Your task to perform on an android device: toggle javascript in the chrome app Image 0: 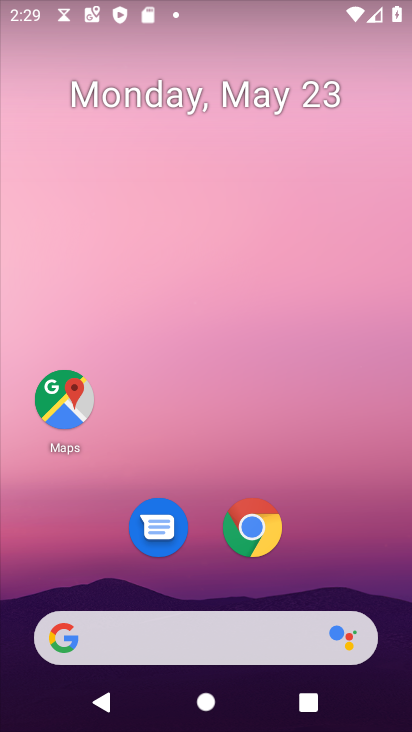
Step 0: drag from (292, 492) to (265, 31)
Your task to perform on an android device: toggle javascript in the chrome app Image 1: 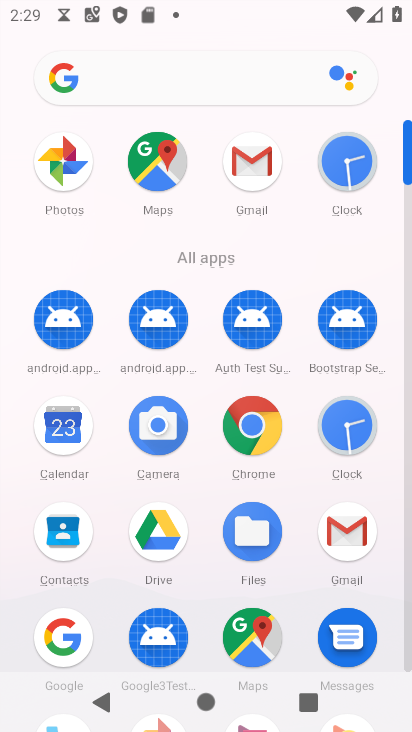
Step 1: drag from (15, 595) to (13, 196)
Your task to perform on an android device: toggle javascript in the chrome app Image 2: 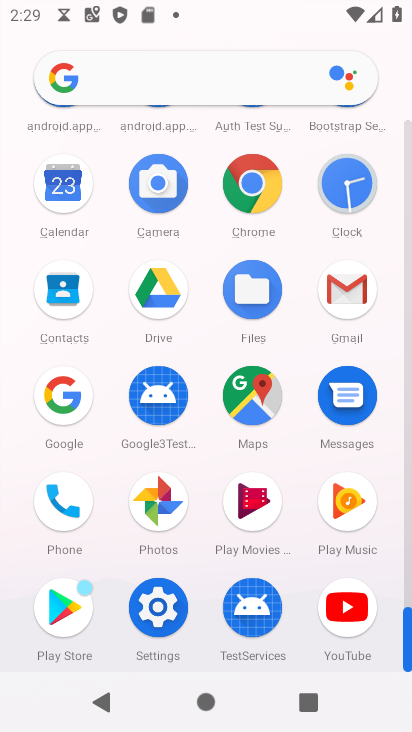
Step 2: click (248, 183)
Your task to perform on an android device: toggle javascript in the chrome app Image 3: 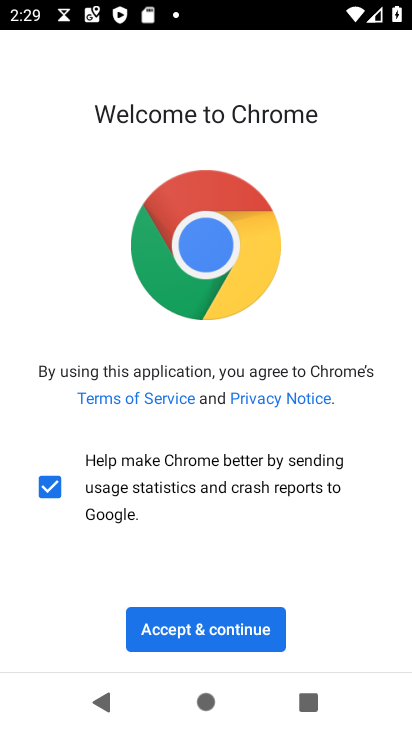
Step 3: click (211, 627)
Your task to perform on an android device: toggle javascript in the chrome app Image 4: 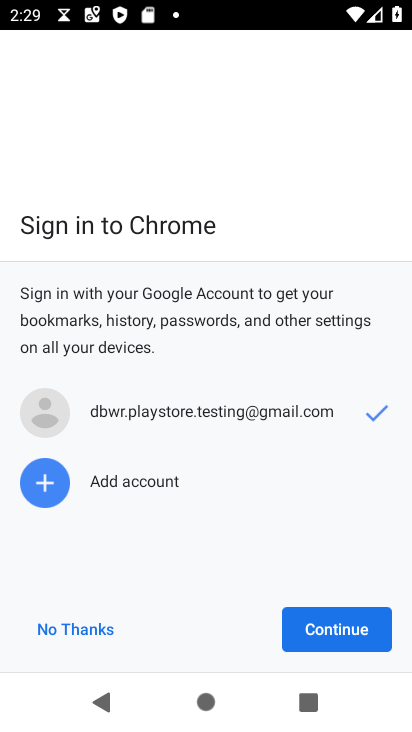
Step 4: click (326, 623)
Your task to perform on an android device: toggle javascript in the chrome app Image 5: 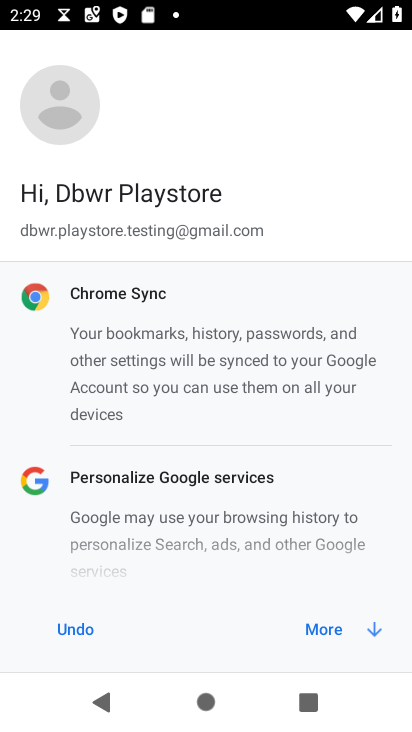
Step 5: click (332, 625)
Your task to perform on an android device: toggle javascript in the chrome app Image 6: 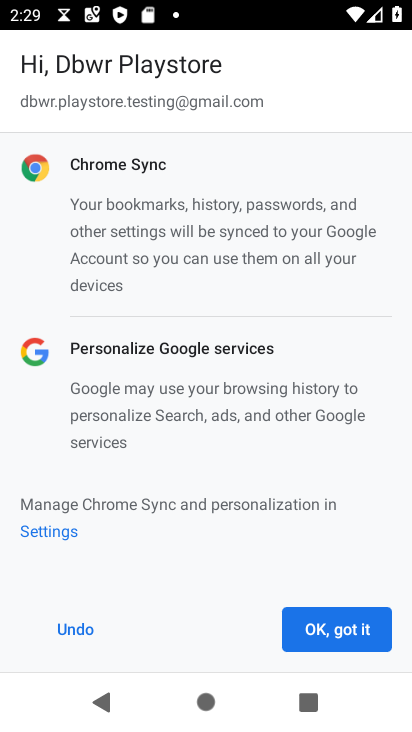
Step 6: click (342, 619)
Your task to perform on an android device: toggle javascript in the chrome app Image 7: 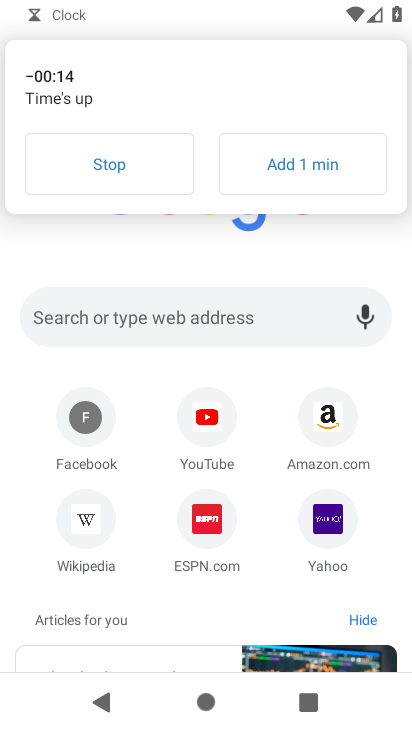
Step 7: click (122, 157)
Your task to perform on an android device: toggle javascript in the chrome app Image 8: 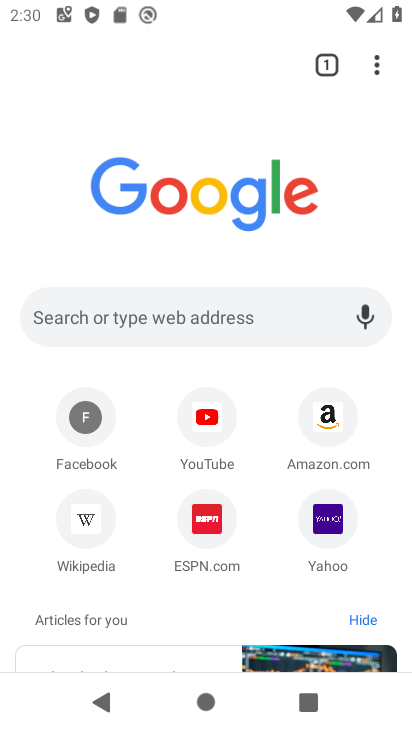
Step 8: drag from (374, 60) to (162, 542)
Your task to perform on an android device: toggle javascript in the chrome app Image 9: 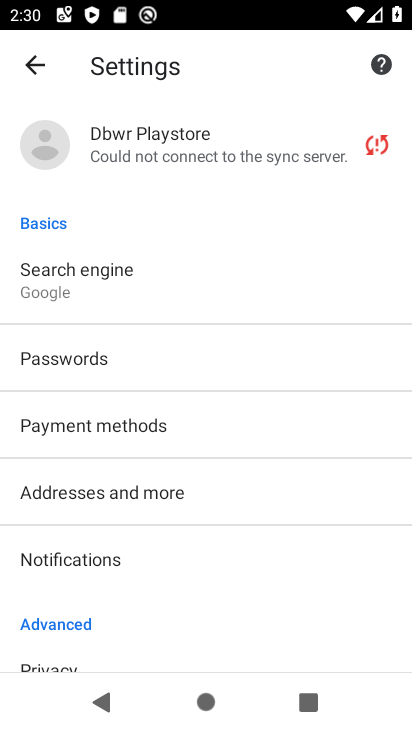
Step 9: drag from (224, 490) to (231, 85)
Your task to perform on an android device: toggle javascript in the chrome app Image 10: 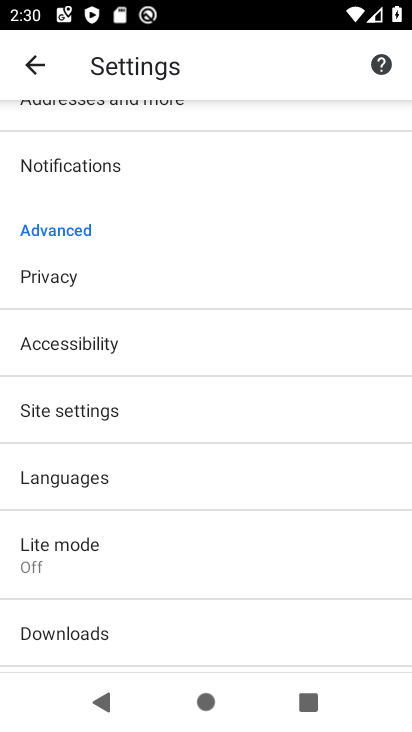
Step 10: drag from (186, 589) to (216, 222)
Your task to perform on an android device: toggle javascript in the chrome app Image 11: 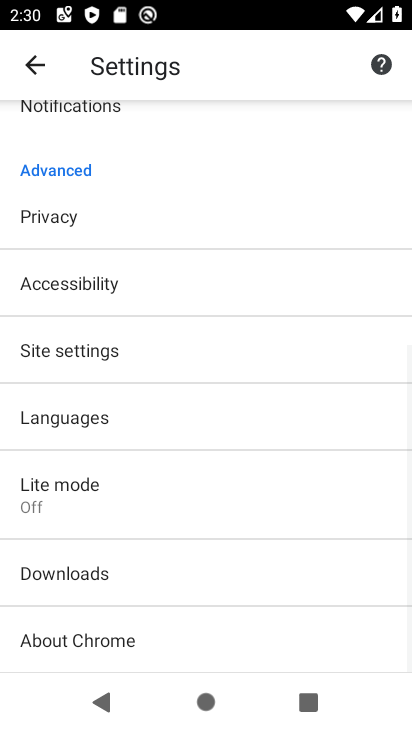
Step 11: click (77, 344)
Your task to perform on an android device: toggle javascript in the chrome app Image 12: 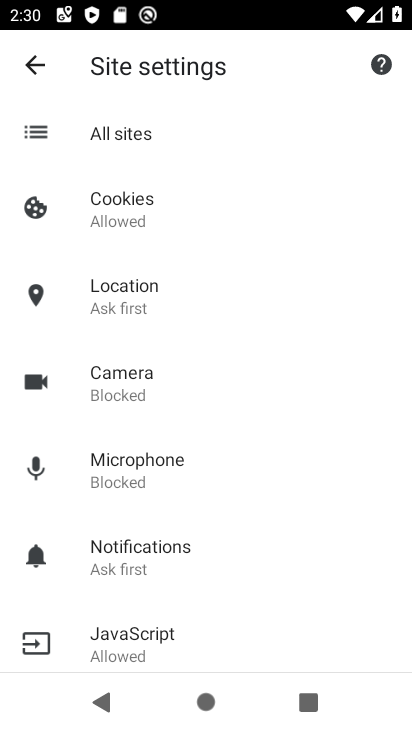
Step 12: drag from (246, 510) to (246, 157)
Your task to perform on an android device: toggle javascript in the chrome app Image 13: 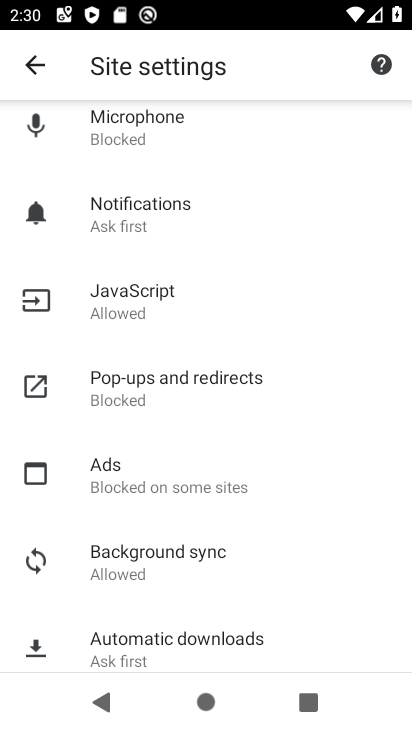
Step 13: drag from (200, 657) to (254, 204)
Your task to perform on an android device: toggle javascript in the chrome app Image 14: 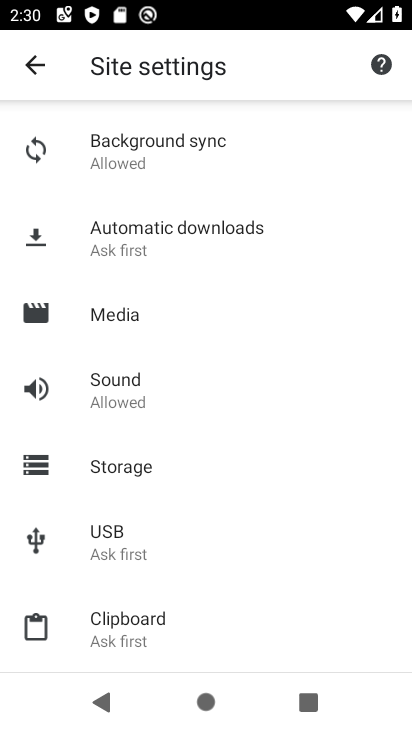
Step 14: drag from (222, 550) to (226, 195)
Your task to perform on an android device: toggle javascript in the chrome app Image 15: 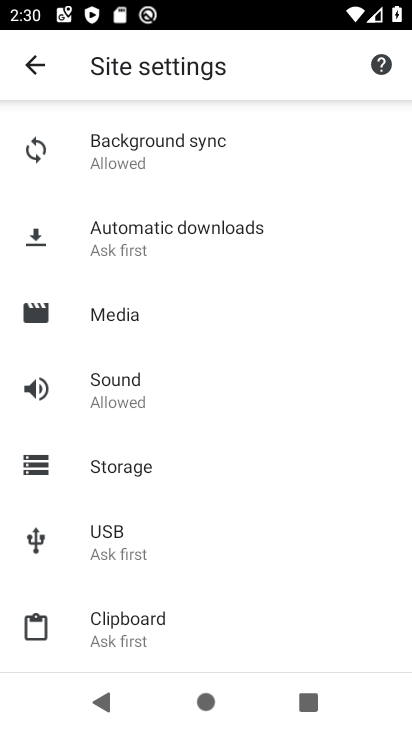
Step 15: drag from (223, 528) to (223, 146)
Your task to perform on an android device: toggle javascript in the chrome app Image 16: 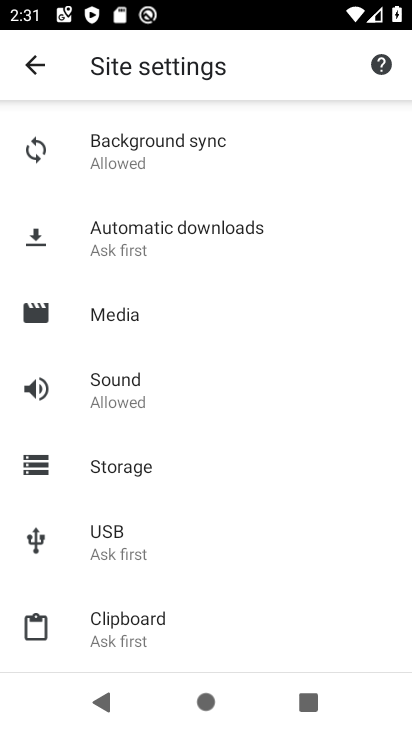
Step 16: drag from (189, 573) to (220, 242)
Your task to perform on an android device: toggle javascript in the chrome app Image 17: 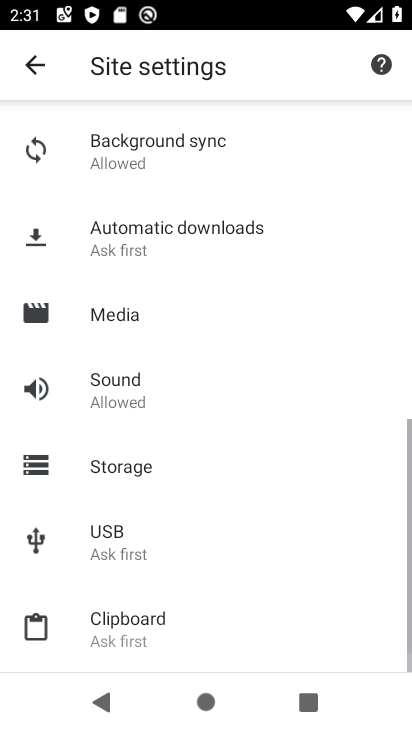
Step 17: drag from (227, 187) to (227, 563)
Your task to perform on an android device: toggle javascript in the chrome app Image 18: 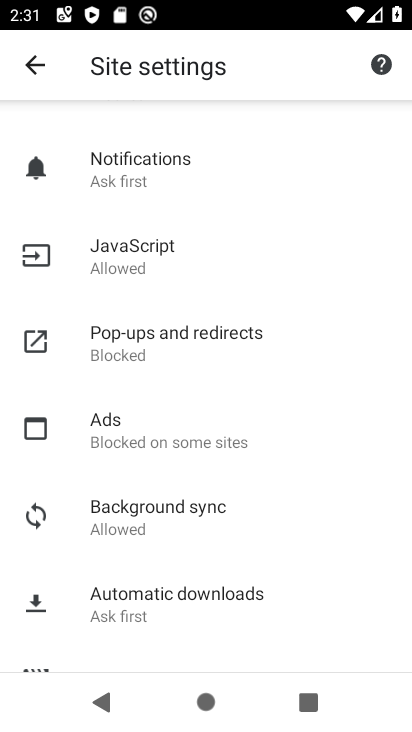
Step 18: click (185, 255)
Your task to perform on an android device: toggle javascript in the chrome app Image 19: 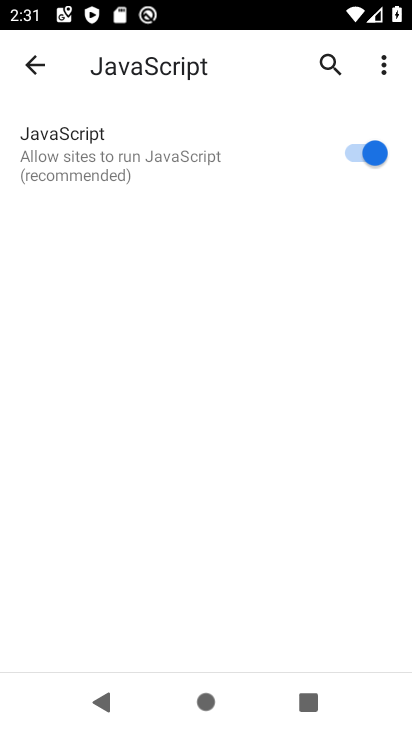
Step 19: click (356, 145)
Your task to perform on an android device: toggle javascript in the chrome app Image 20: 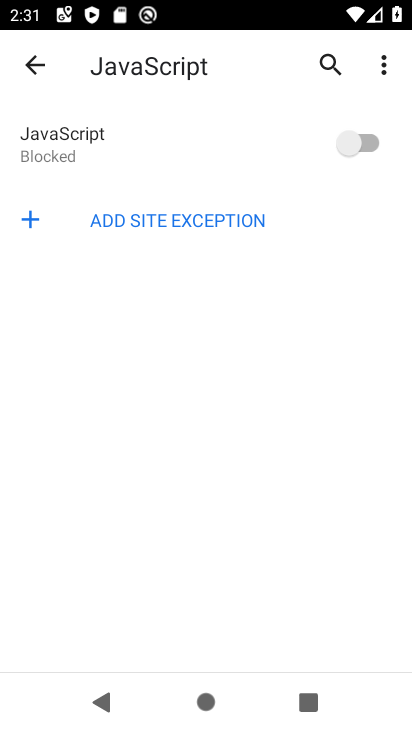
Step 20: task complete